Your task to perform on an android device: toggle data saver in the chrome app Image 0: 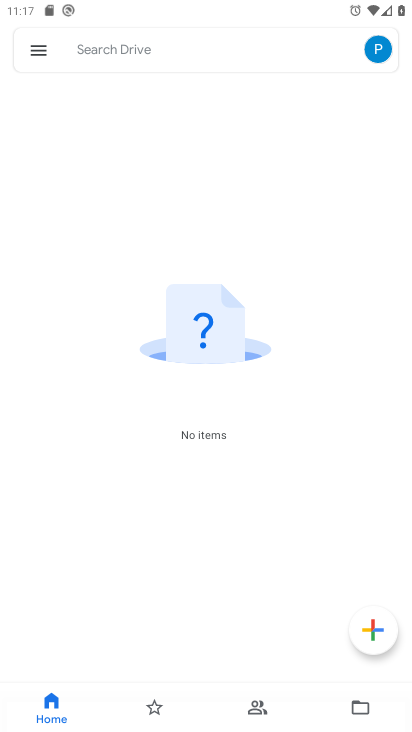
Step 0: press home button
Your task to perform on an android device: toggle data saver in the chrome app Image 1: 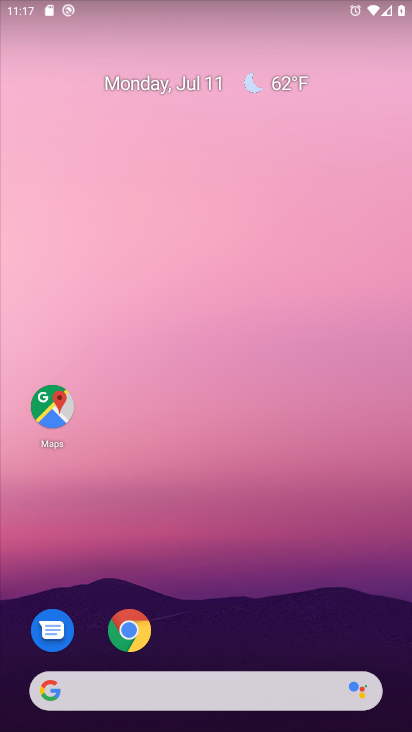
Step 1: click (133, 629)
Your task to perform on an android device: toggle data saver in the chrome app Image 2: 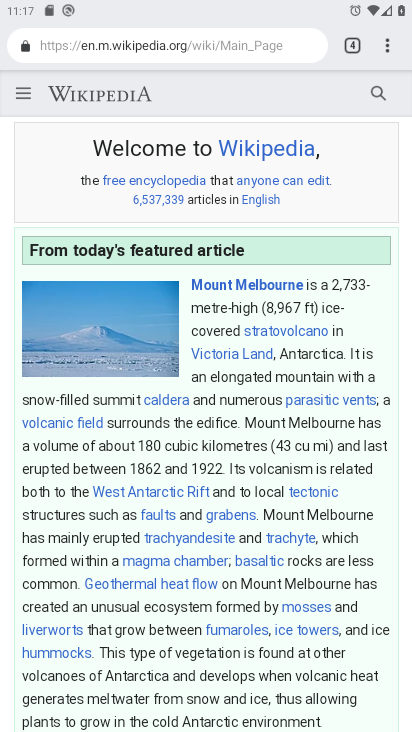
Step 2: click (385, 47)
Your task to perform on an android device: toggle data saver in the chrome app Image 3: 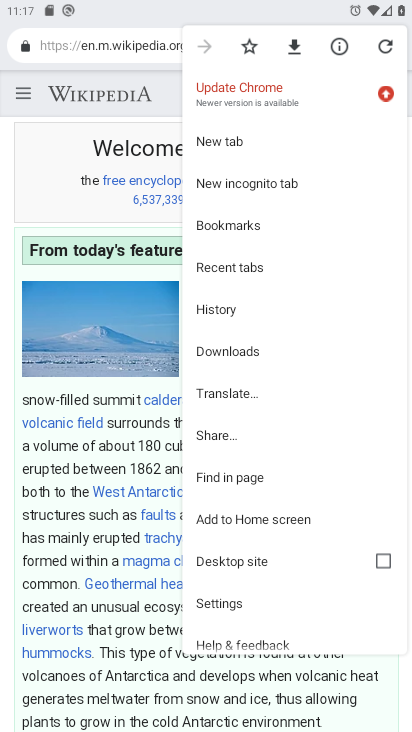
Step 3: click (237, 604)
Your task to perform on an android device: toggle data saver in the chrome app Image 4: 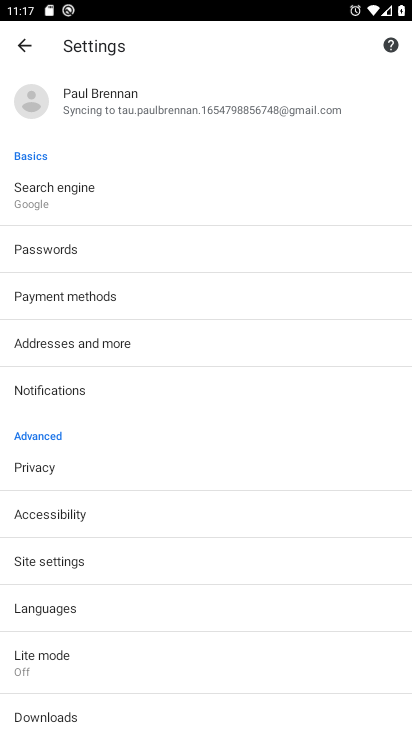
Step 4: click (111, 672)
Your task to perform on an android device: toggle data saver in the chrome app Image 5: 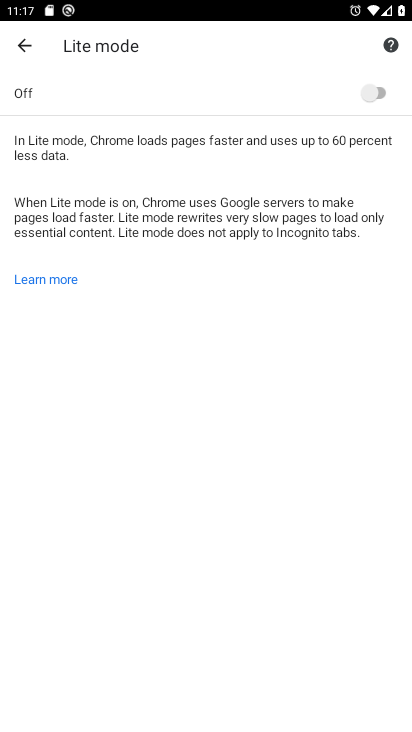
Step 5: click (370, 92)
Your task to perform on an android device: toggle data saver in the chrome app Image 6: 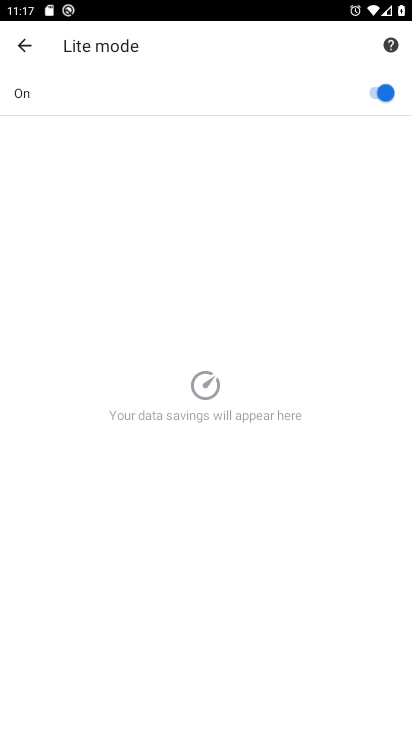
Step 6: task complete